Your task to perform on an android device: Open Google Maps Image 0: 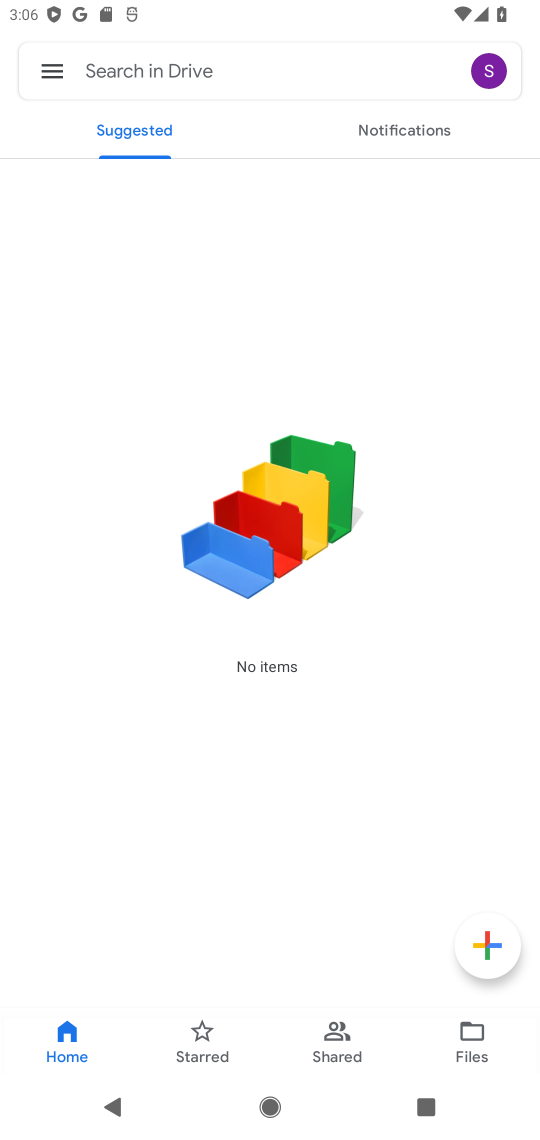
Step 0: press home button
Your task to perform on an android device: Open Google Maps Image 1: 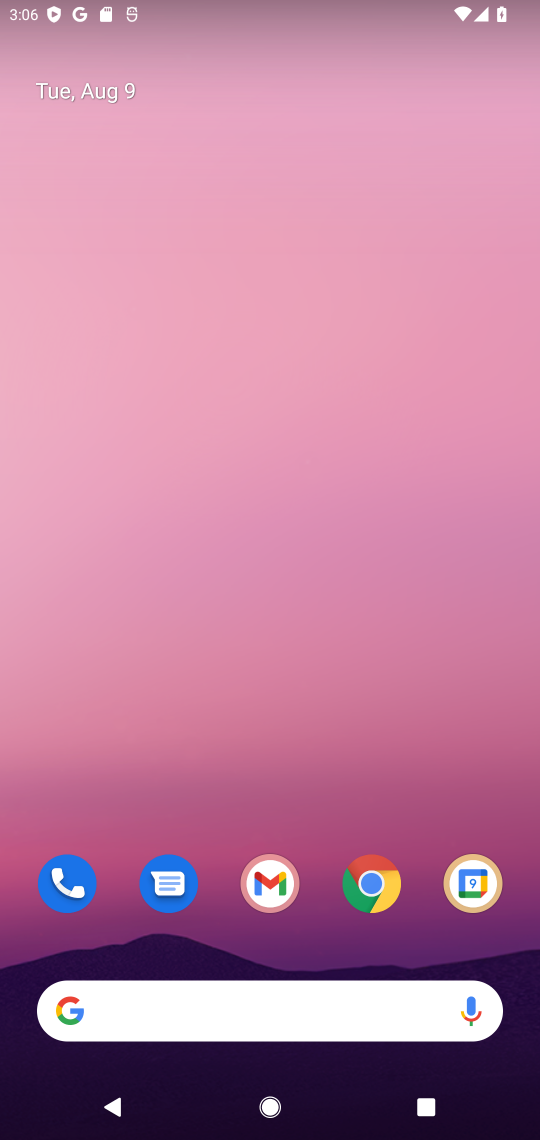
Step 1: drag from (420, 945) to (388, 295)
Your task to perform on an android device: Open Google Maps Image 2: 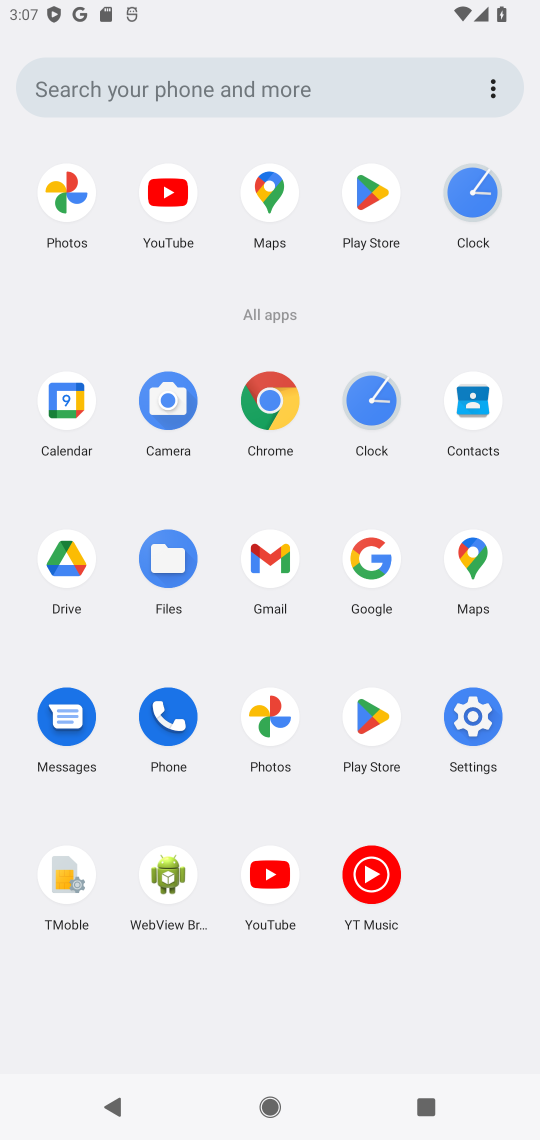
Step 2: click (474, 555)
Your task to perform on an android device: Open Google Maps Image 3: 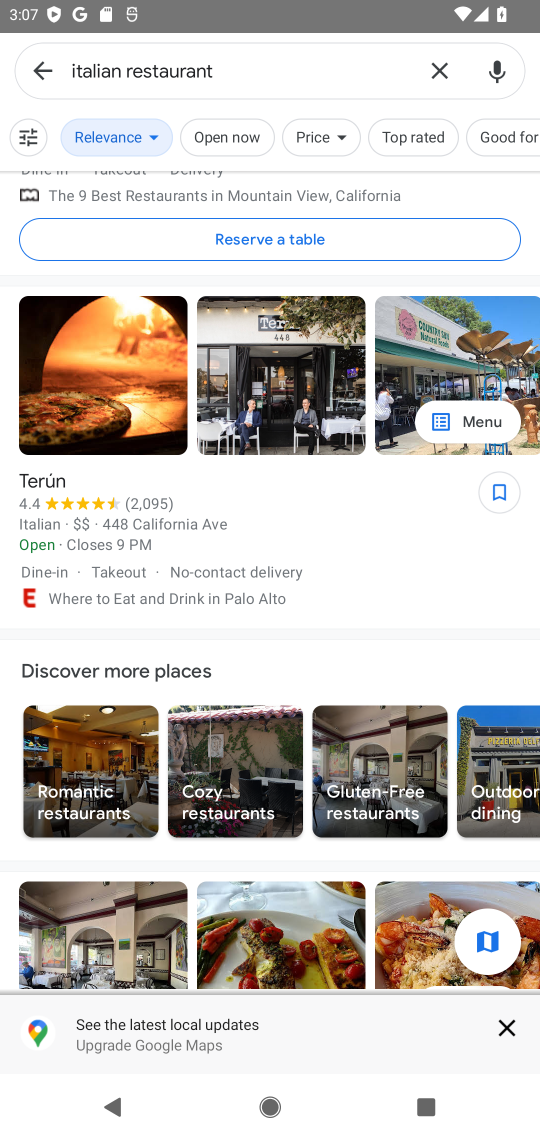
Step 3: click (445, 70)
Your task to perform on an android device: Open Google Maps Image 4: 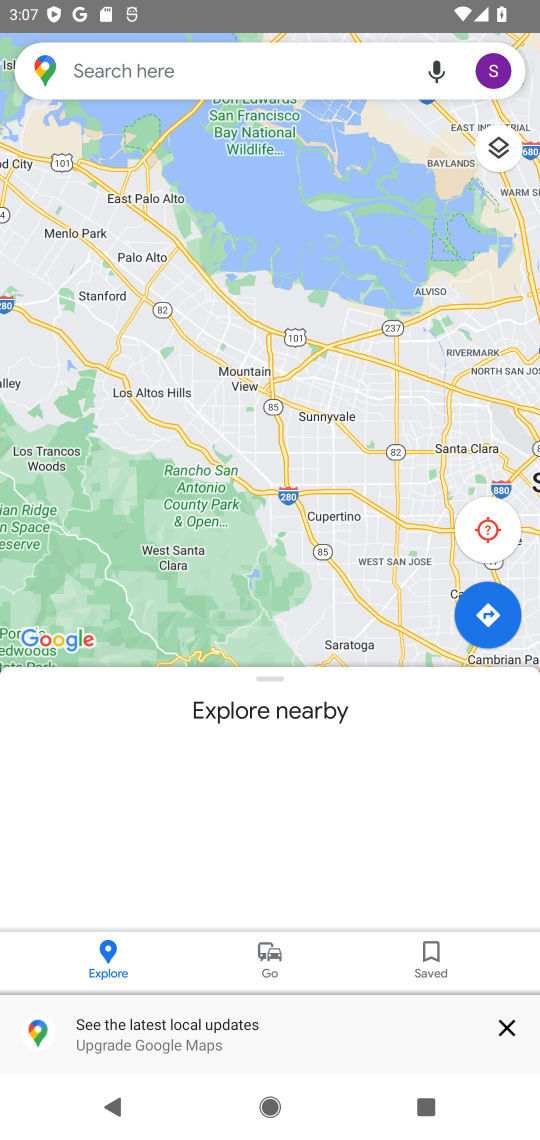
Step 4: task complete